Your task to perform on an android device: turn on javascript in the chrome app Image 0: 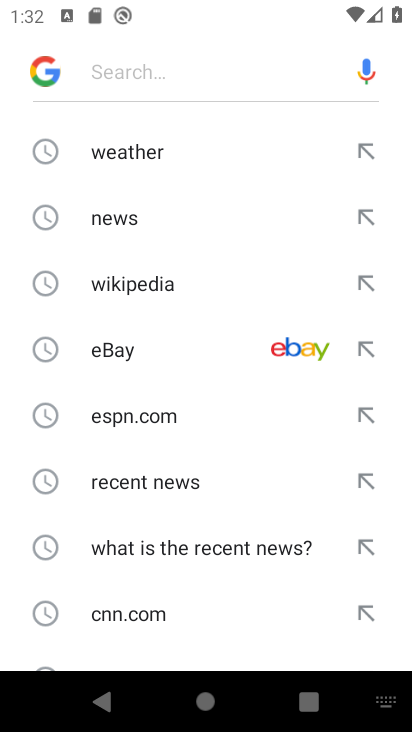
Step 0: press home button
Your task to perform on an android device: turn on javascript in the chrome app Image 1: 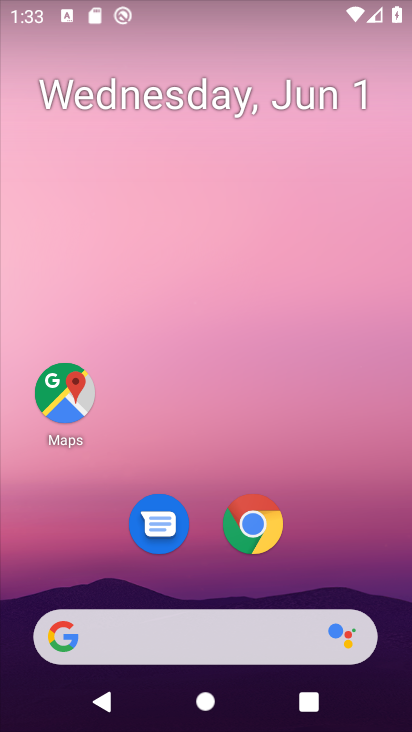
Step 1: click (264, 514)
Your task to perform on an android device: turn on javascript in the chrome app Image 2: 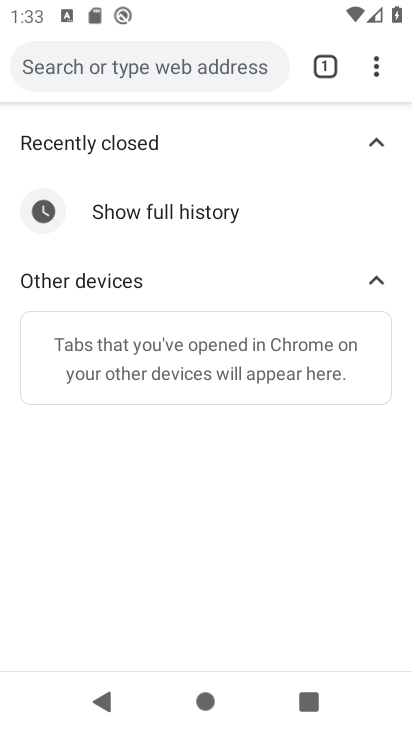
Step 2: click (377, 75)
Your task to perform on an android device: turn on javascript in the chrome app Image 3: 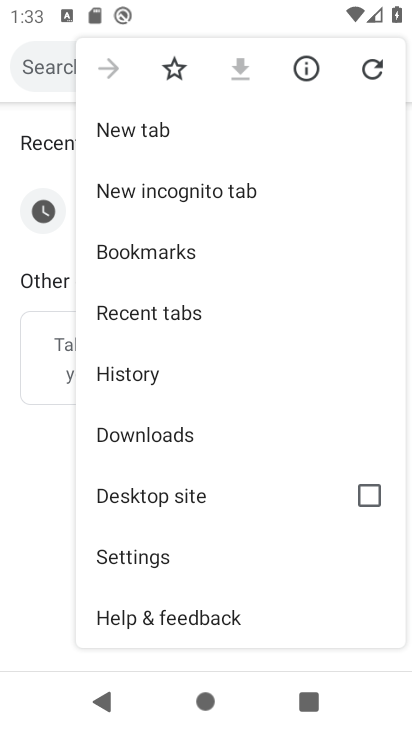
Step 3: click (170, 545)
Your task to perform on an android device: turn on javascript in the chrome app Image 4: 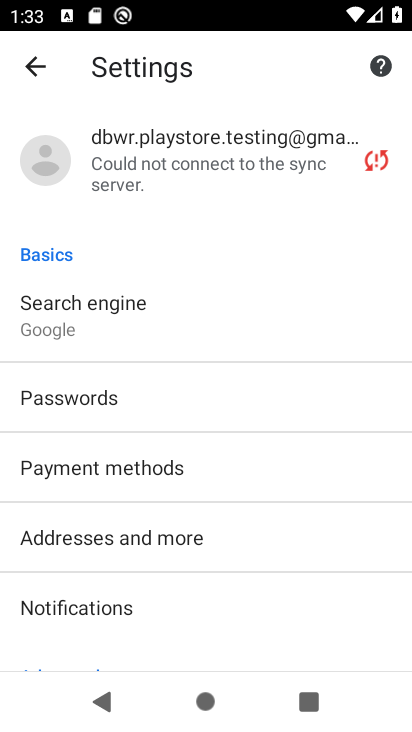
Step 4: drag from (267, 455) to (241, 176)
Your task to perform on an android device: turn on javascript in the chrome app Image 5: 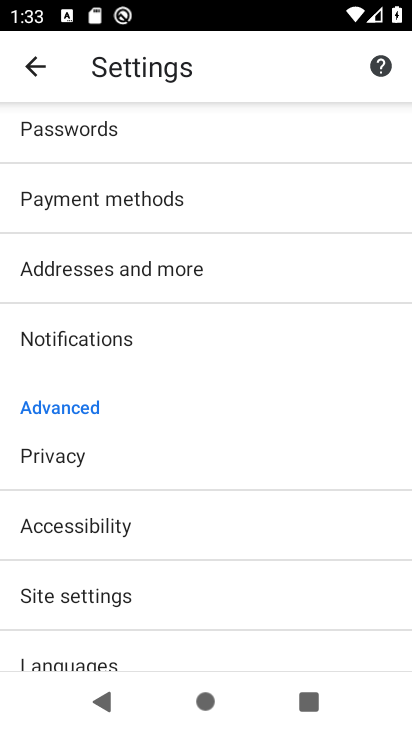
Step 5: drag from (245, 491) to (235, 223)
Your task to perform on an android device: turn on javascript in the chrome app Image 6: 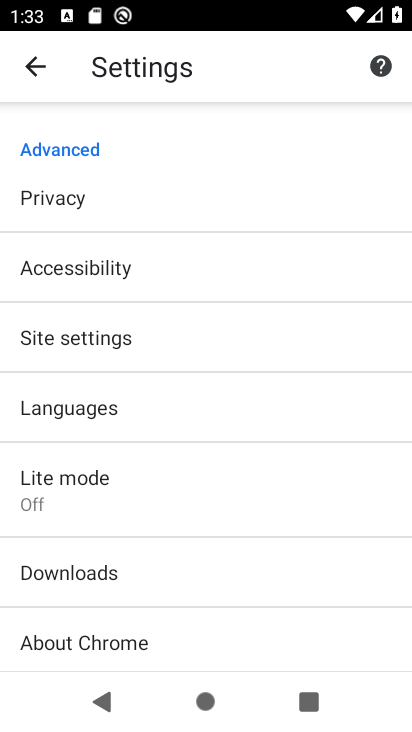
Step 6: drag from (235, 476) to (197, 214)
Your task to perform on an android device: turn on javascript in the chrome app Image 7: 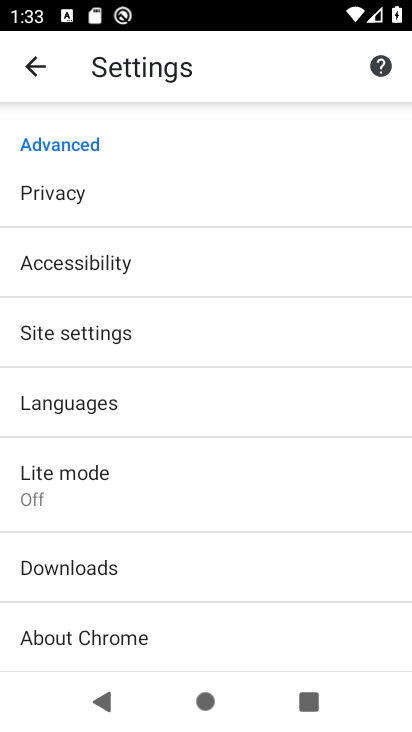
Step 7: click (224, 324)
Your task to perform on an android device: turn on javascript in the chrome app Image 8: 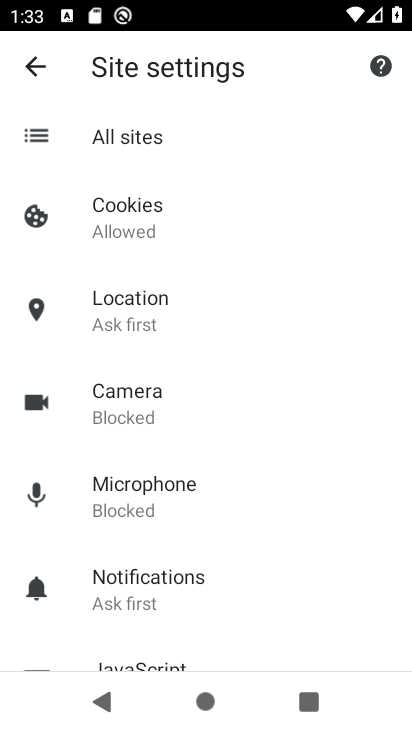
Step 8: drag from (245, 503) to (231, 199)
Your task to perform on an android device: turn on javascript in the chrome app Image 9: 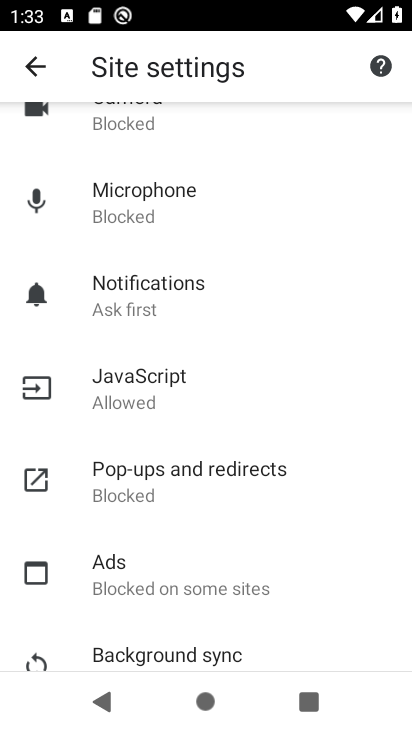
Step 9: click (223, 379)
Your task to perform on an android device: turn on javascript in the chrome app Image 10: 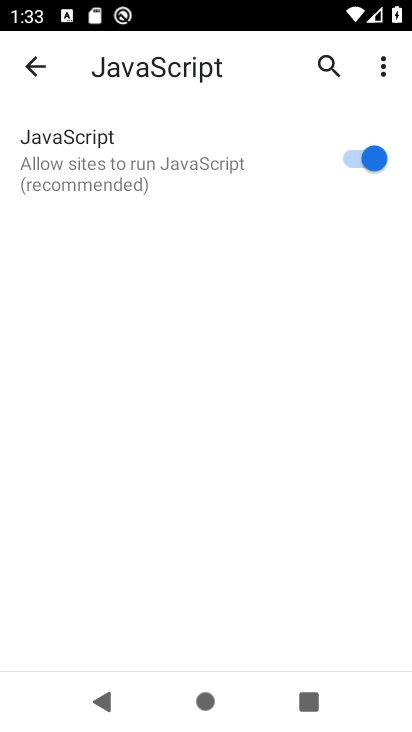
Step 10: task complete